Your task to perform on an android device: Do I have any events this weekend? Image 0: 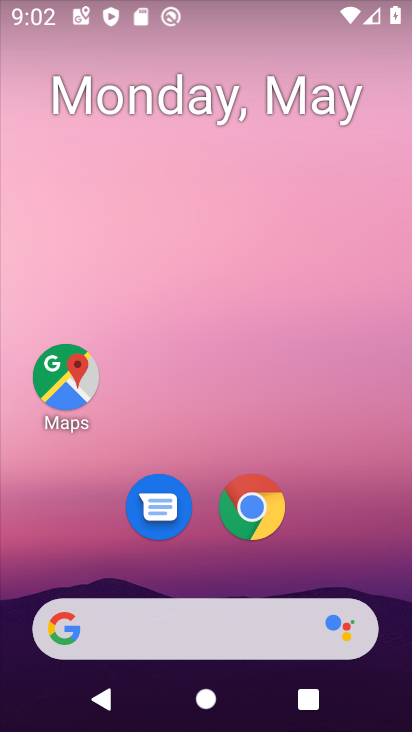
Step 0: drag from (207, 565) to (264, 109)
Your task to perform on an android device: Do I have any events this weekend? Image 1: 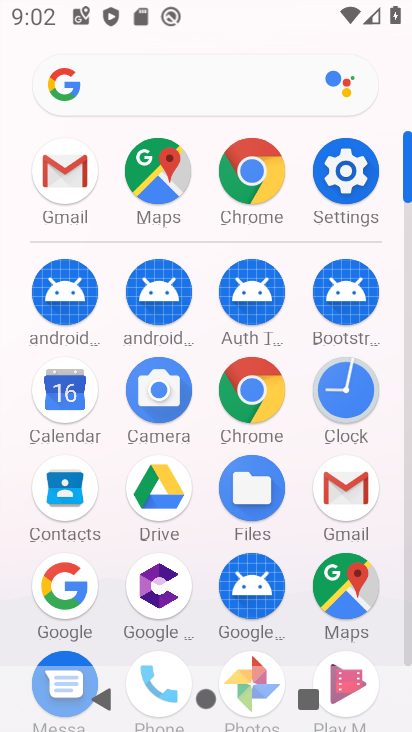
Step 1: click (52, 419)
Your task to perform on an android device: Do I have any events this weekend? Image 2: 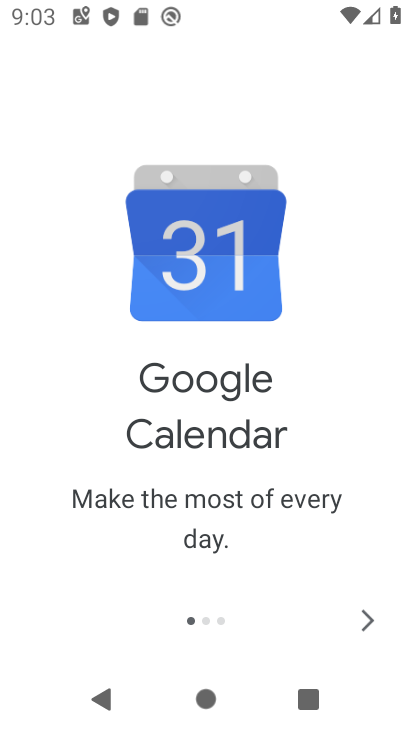
Step 2: click (366, 617)
Your task to perform on an android device: Do I have any events this weekend? Image 3: 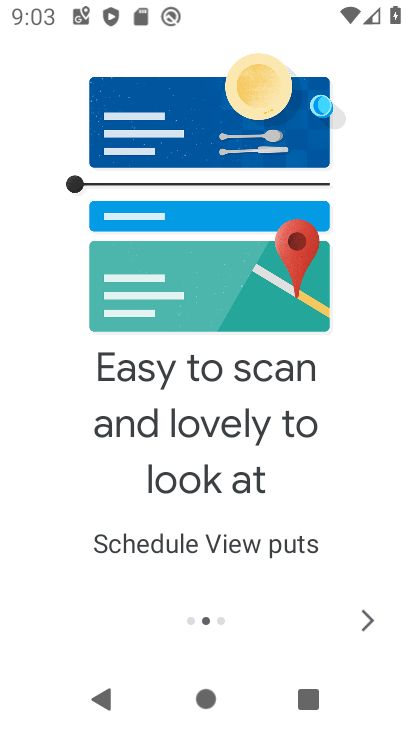
Step 3: click (367, 620)
Your task to perform on an android device: Do I have any events this weekend? Image 4: 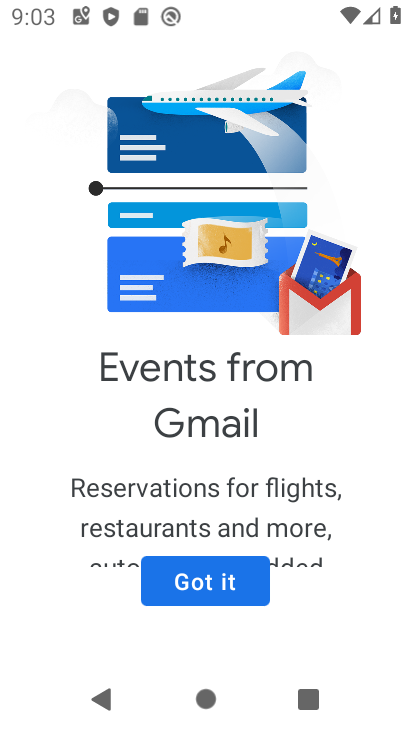
Step 4: click (228, 580)
Your task to perform on an android device: Do I have any events this weekend? Image 5: 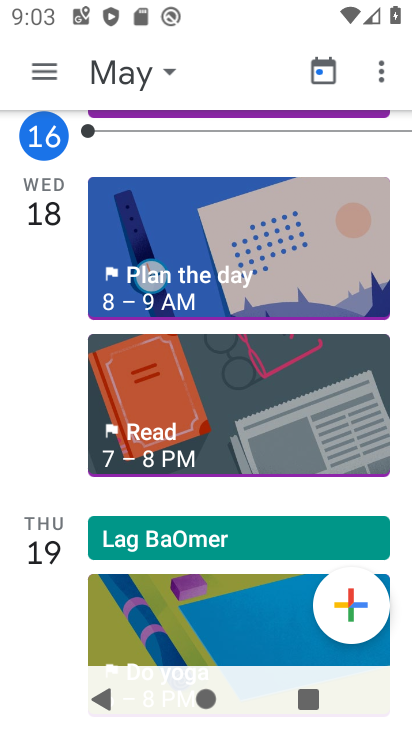
Step 5: click (36, 73)
Your task to perform on an android device: Do I have any events this weekend? Image 6: 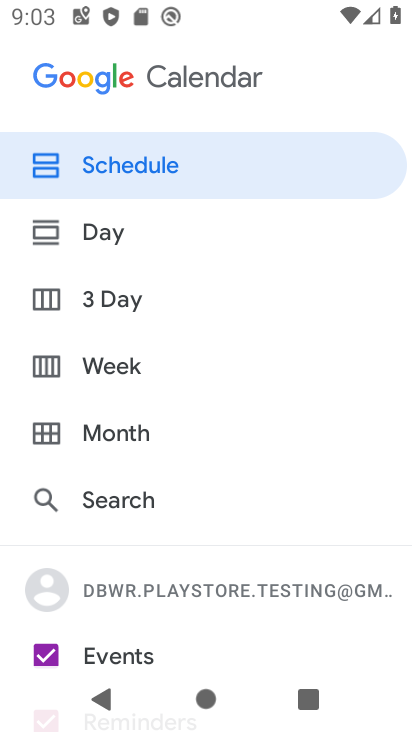
Step 6: drag from (108, 626) to (206, 287)
Your task to perform on an android device: Do I have any events this weekend? Image 7: 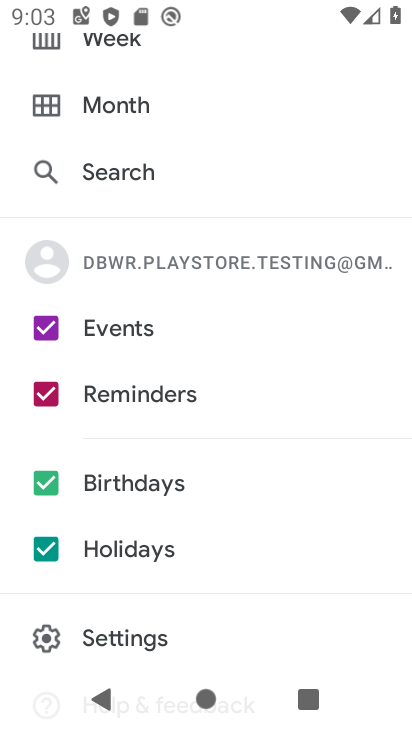
Step 7: click (40, 480)
Your task to perform on an android device: Do I have any events this weekend? Image 8: 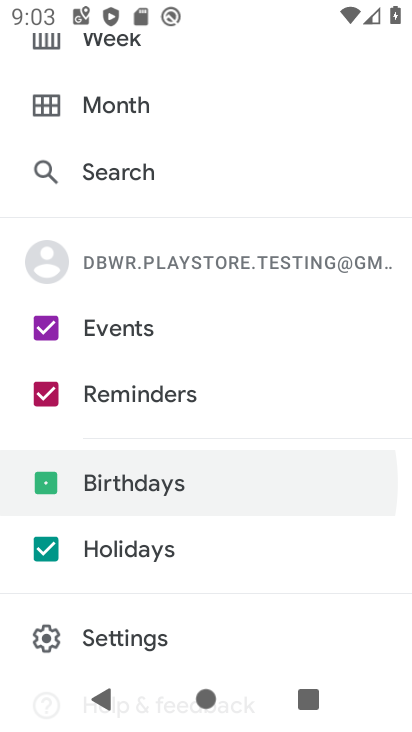
Step 8: click (36, 544)
Your task to perform on an android device: Do I have any events this weekend? Image 9: 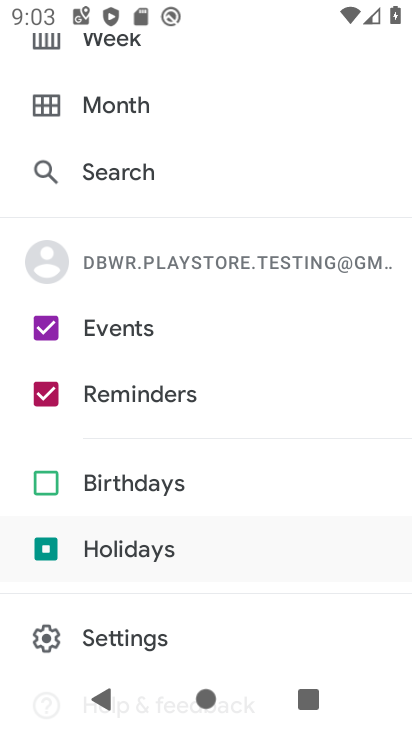
Step 9: click (63, 398)
Your task to perform on an android device: Do I have any events this weekend? Image 10: 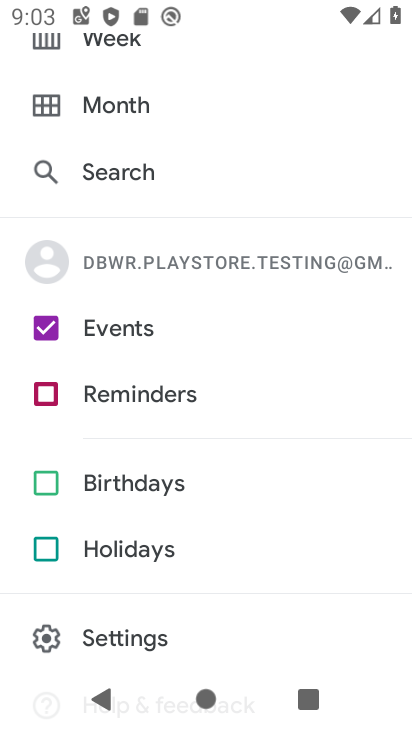
Step 10: drag from (294, 320) to (321, 585)
Your task to perform on an android device: Do I have any events this weekend? Image 11: 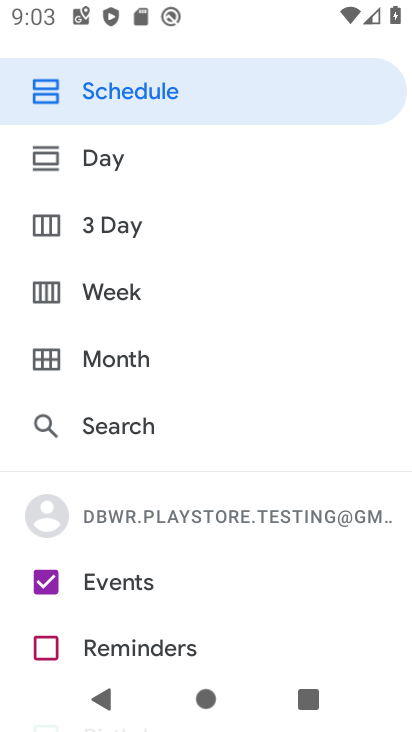
Step 11: click (132, 268)
Your task to perform on an android device: Do I have any events this weekend? Image 12: 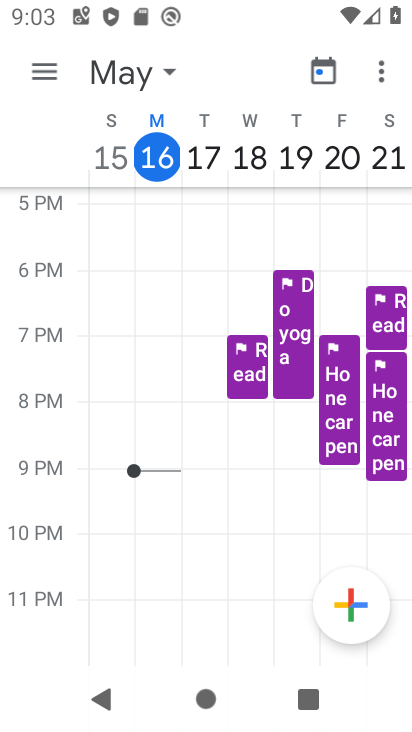
Step 12: task complete